Your task to perform on an android device: Open the phone app and click the voicemail tab. Image 0: 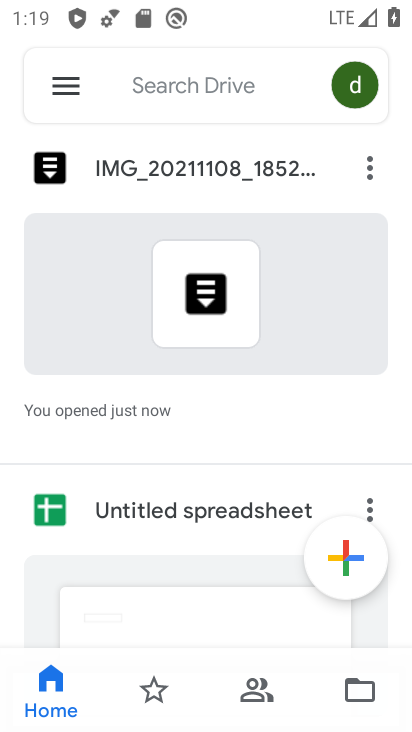
Step 0: press home button
Your task to perform on an android device: Open the phone app and click the voicemail tab. Image 1: 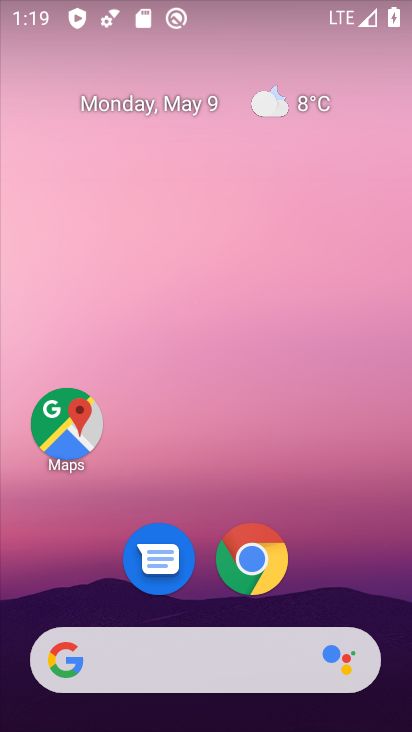
Step 1: drag from (360, 586) to (251, 14)
Your task to perform on an android device: Open the phone app and click the voicemail tab. Image 2: 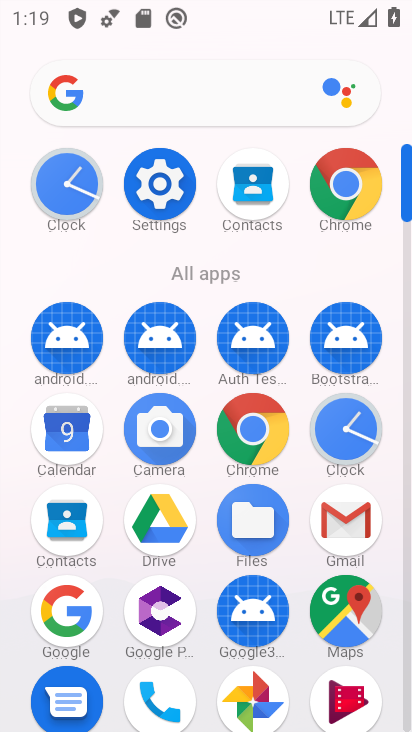
Step 2: click (161, 691)
Your task to perform on an android device: Open the phone app and click the voicemail tab. Image 3: 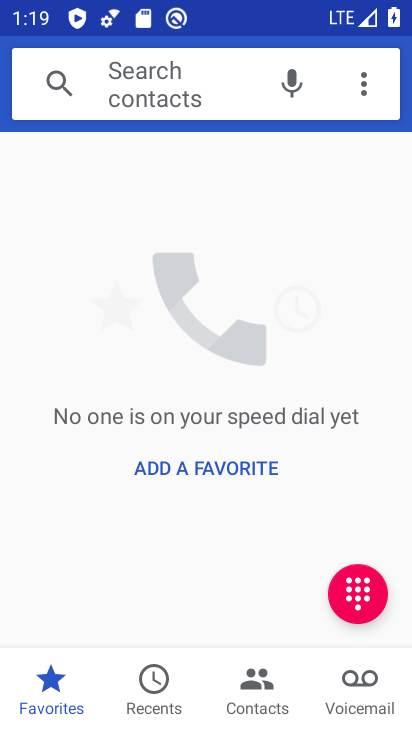
Step 3: click (354, 684)
Your task to perform on an android device: Open the phone app and click the voicemail tab. Image 4: 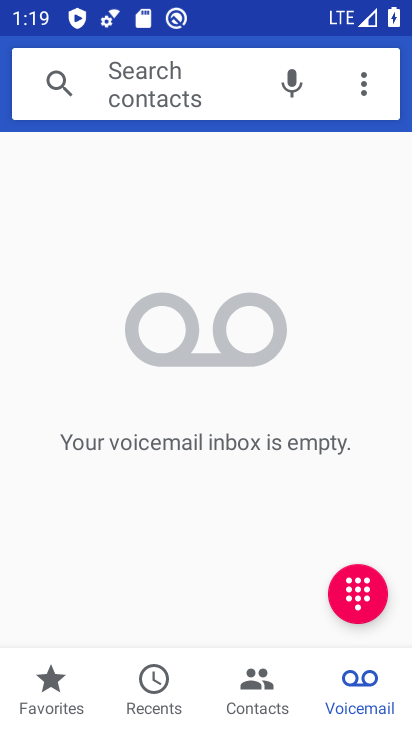
Step 4: task complete